Your task to perform on an android device: Go to accessibility settings Image 0: 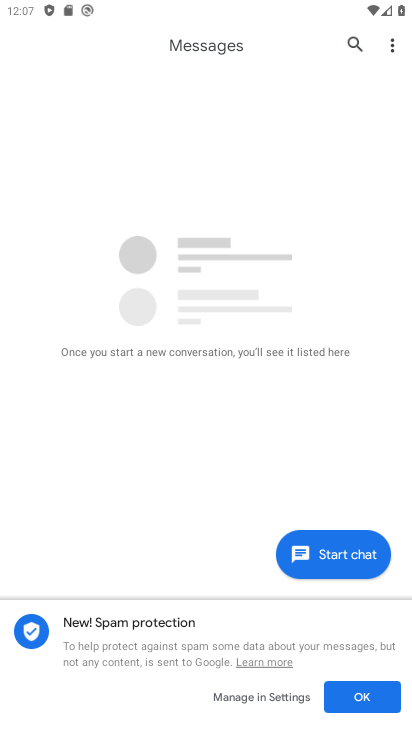
Step 0: press home button
Your task to perform on an android device: Go to accessibility settings Image 1: 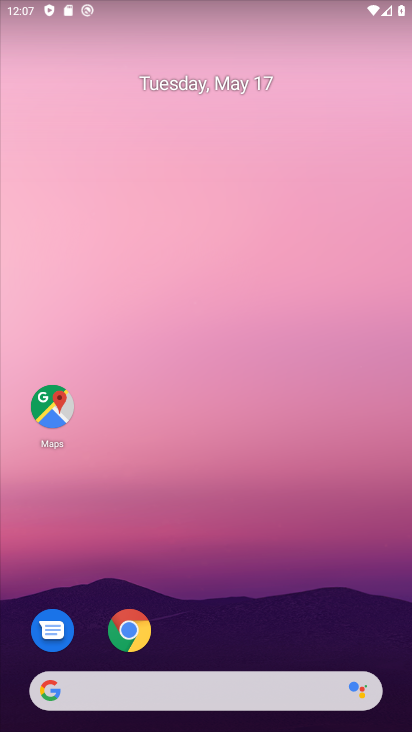
Step 1: drag from (187, 660) to (297, 292)
Your task to perform on an android device: Go to accessibility settings Image 2: 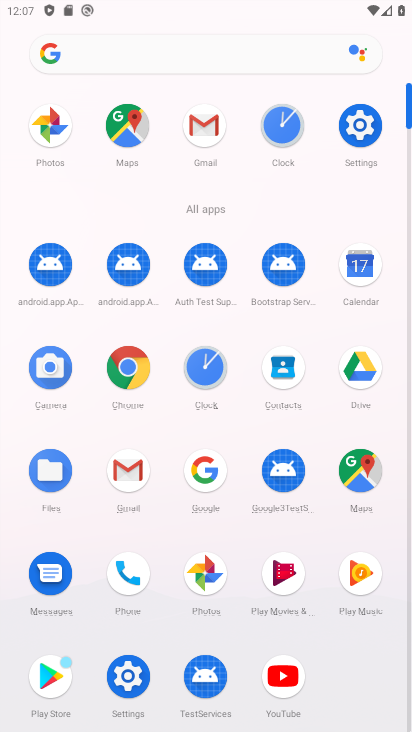
Step 2: click (121, 672)
Your task to perform on an android device: Go to accessibility settings Image 3: 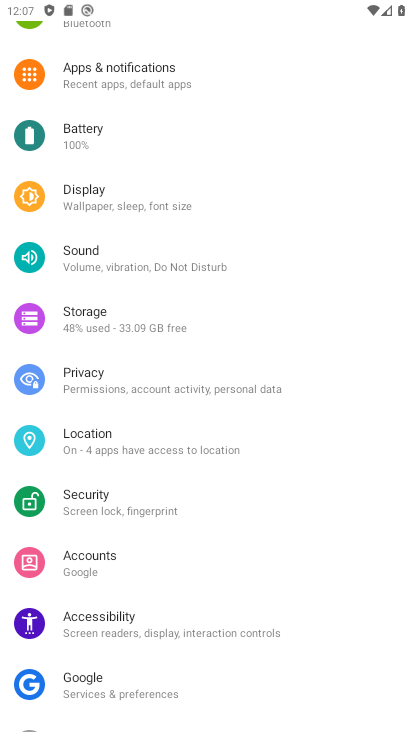
Step 3: click (150, 634)
Your task to perform on an android device: Go to accessibility settings Image 4: 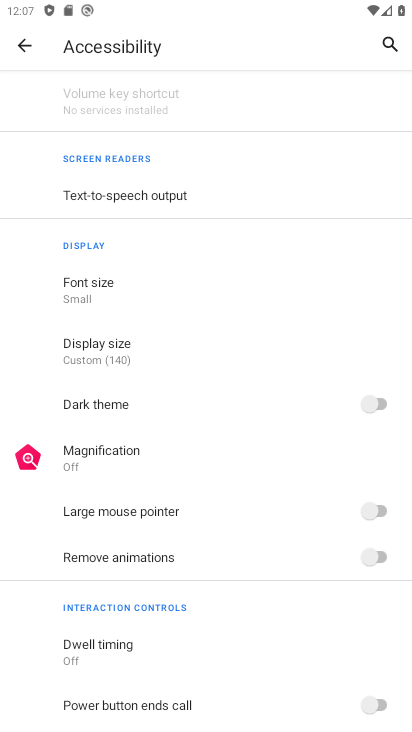
Step 4: task complete